Your task to perform on an android device: empty trash in the gmail app Image 0: 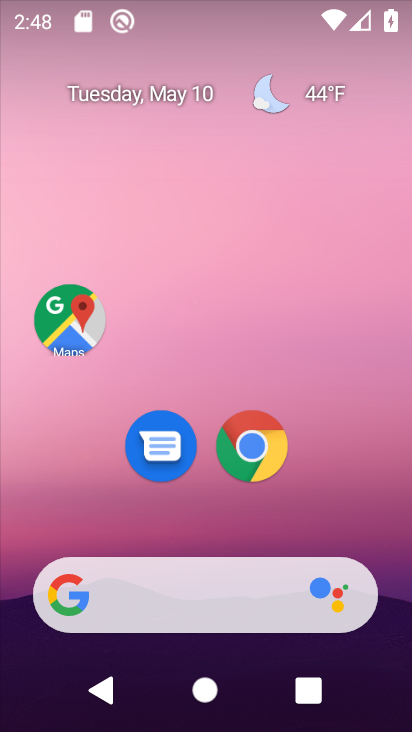
Step 0: drag from (376, 509) to (354, 12)
Your task to perform on an android device: empty trash in the gmail app Image 1: 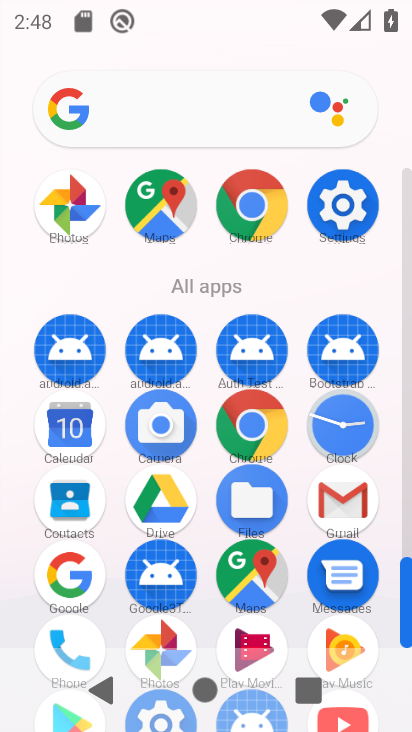
Step 1: click (344, 484)
Your task to perform on an android device: empty trash in the gmail app Image 2: 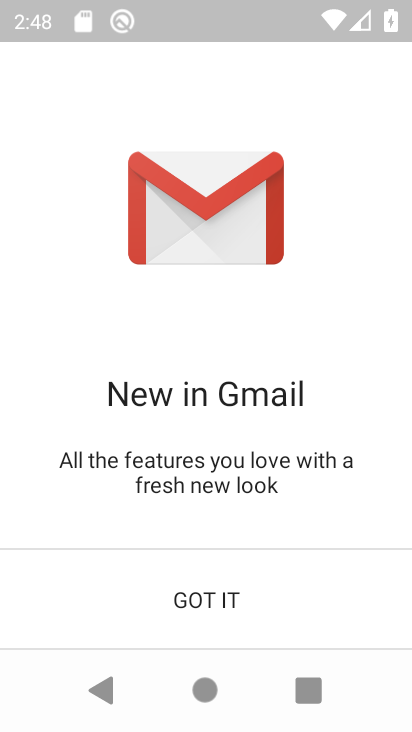
Step 2: click (184, 608)
Your task to perform on an android device: empty trash in the gmail app Image 3: 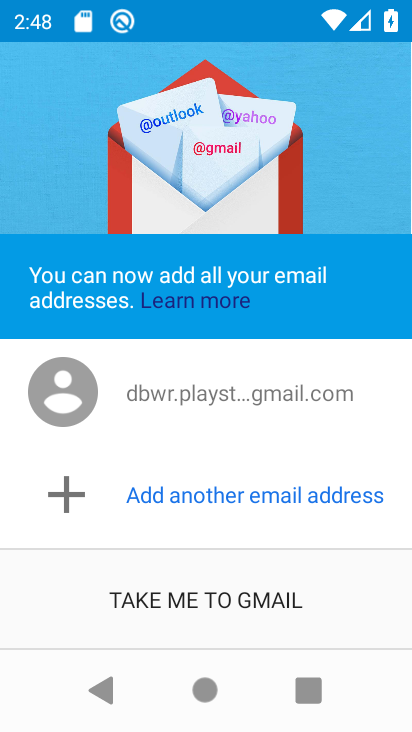
Step 3: click (184, 608)
Your task to perform on an android device: empty trash in the gmail app Image 4: 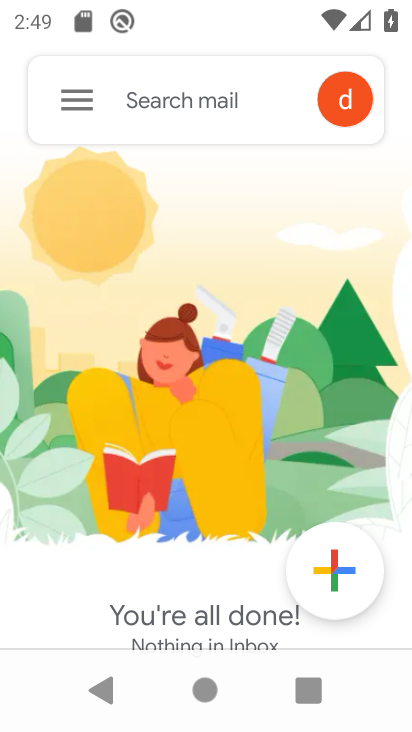
Step 4: click (60, 101)
Your task to perform on an android device: empty trash in the gmail app Image 5: 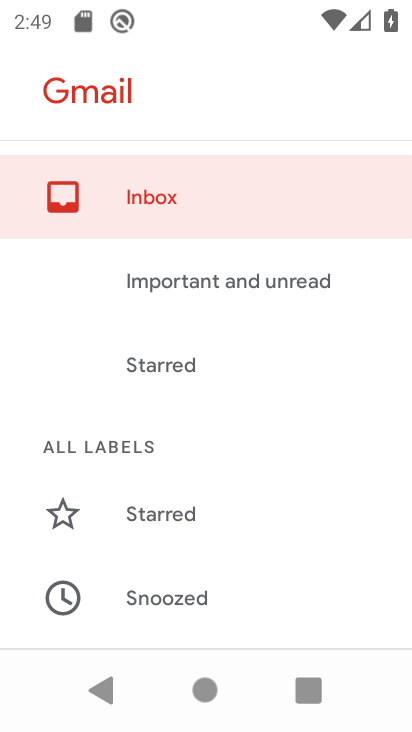
Step 5: drag from (173, 585) to (271, 187)
Your task to perform on an android device: empty trash in the gmail app Image 6: 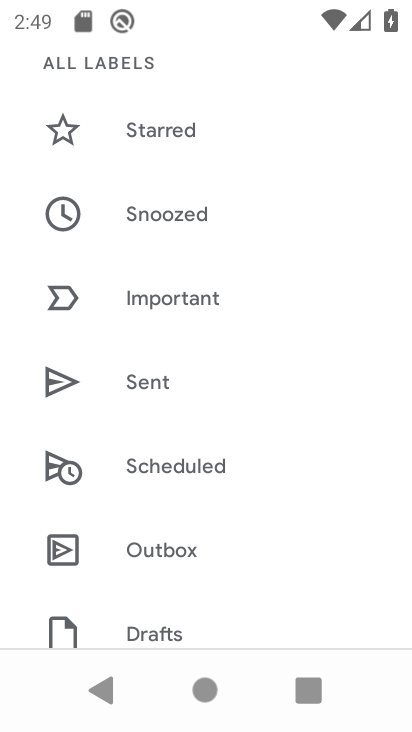
Step 6: drag from (213, 567) to (263, 131)
Your task to perform on an android device: empty trash in the gmail app Image 7: 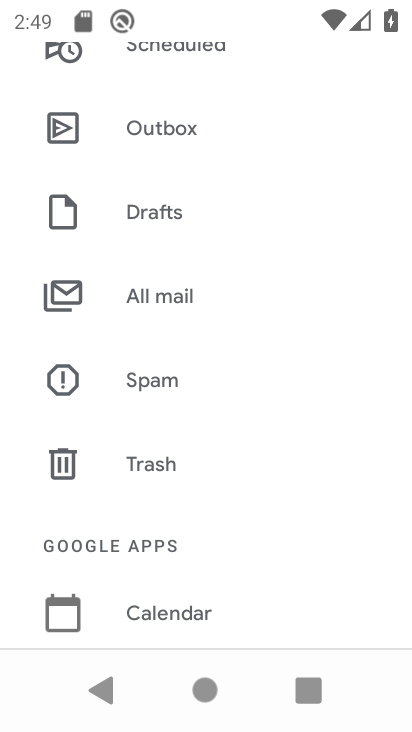
Step 7: click (168, 476)
Your task to perform on an android device: empty trash in the gmail app Image 8: 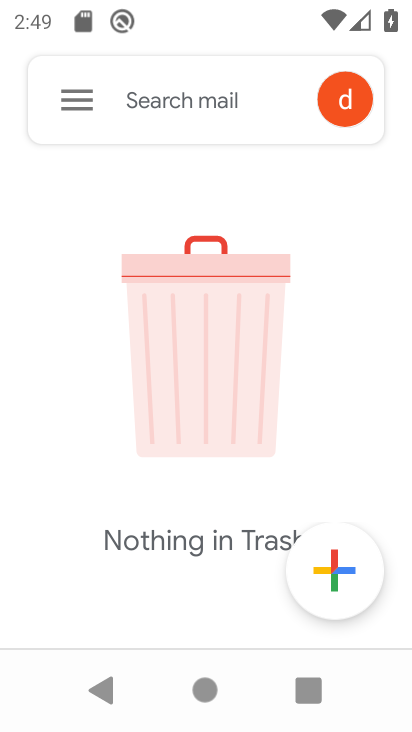
Step 8: task complete